Your task to perform on an android device: allow cookies in the chrome app Image 0: 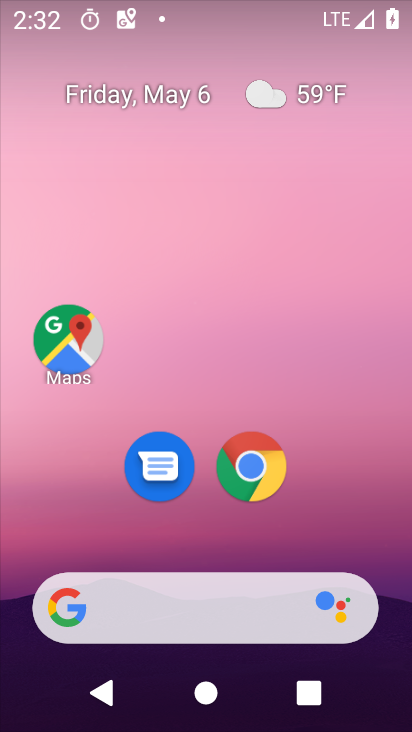
Step 0: click (247, 460)
Your task to perform on an android device: allow cookies in the chrome app Image 1: 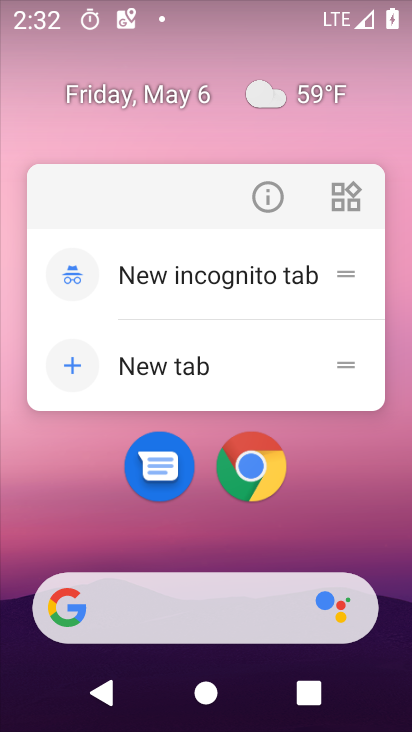
Step 1: click (257, 471)
Your task to perform on an android device: allow cookies in the chrome app Image 2: 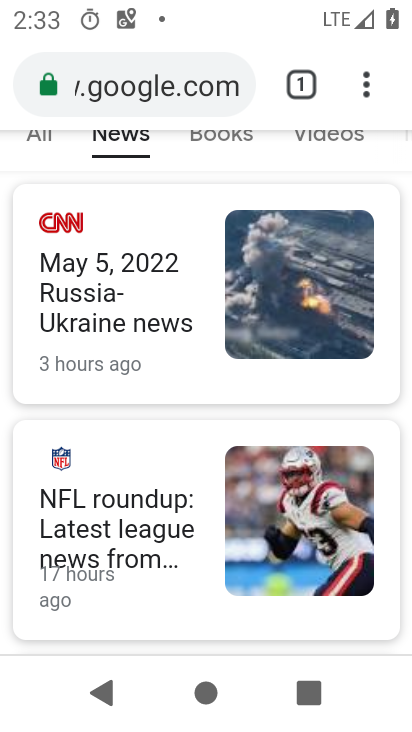
Step 2: drag from (366, 82) to (224, 506)
Your task to perform on an android device: allow cookies in the chrome app Image 3: 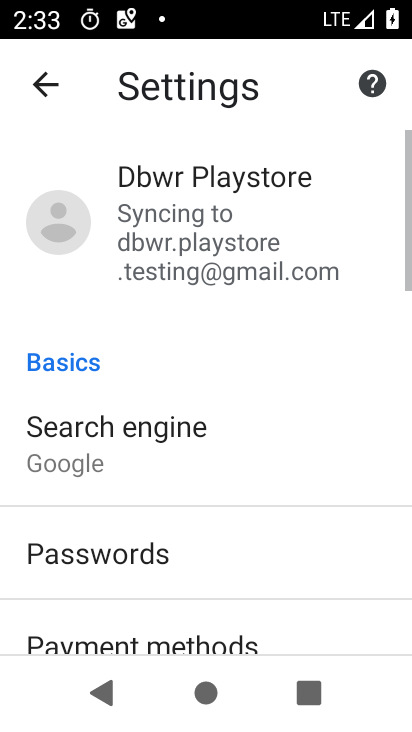
Step 3: drag from (253, 551) to (315, 92)
Your task to perform on an android device: allow cookies in the chrome app Image 4: 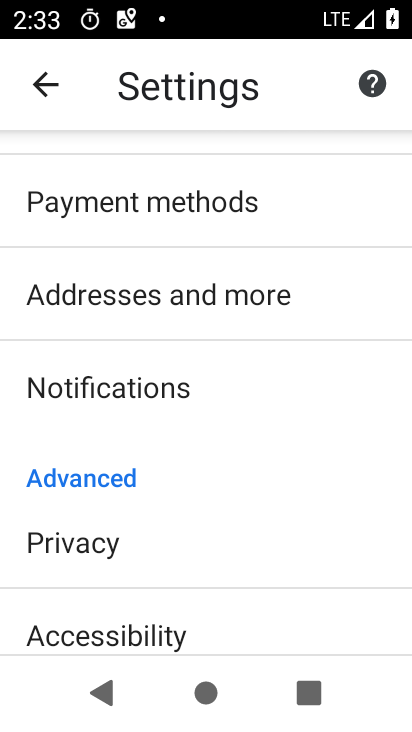
Step 4: drag from (248, 521) to (291, 140)
Your task to perform on an android device: allow cookies in the chrome app Image 5: 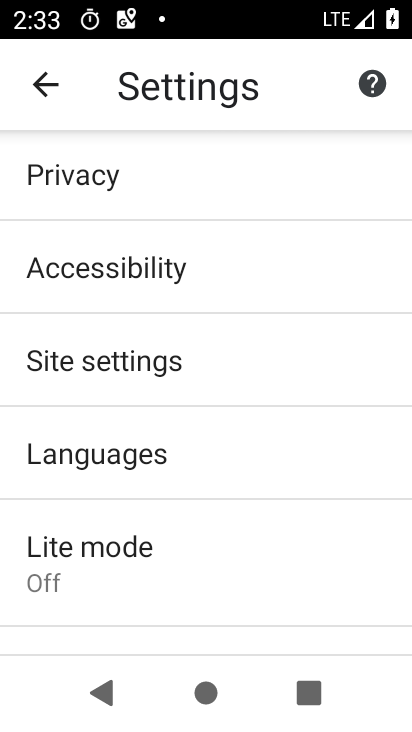
Step 5: click (156, 352)
Your task to perform on an android device: allow cookies in the chrome app Image 6: 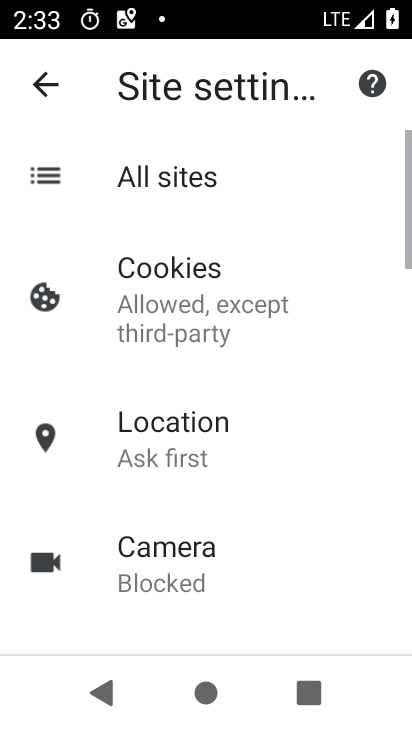
Step 6: click (192, 294)
Your task to perform on an android device: allow cookies in the chrome app Image 7: 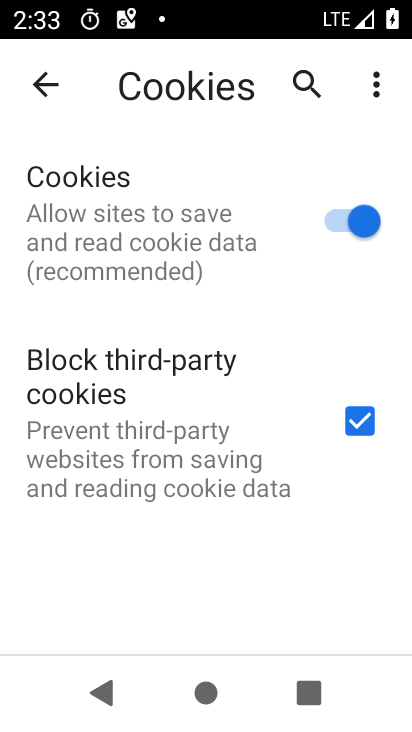
Step 7: task complete